Your task to perform on an android device: install app "Booking.com: Hotels and more" Image 0: 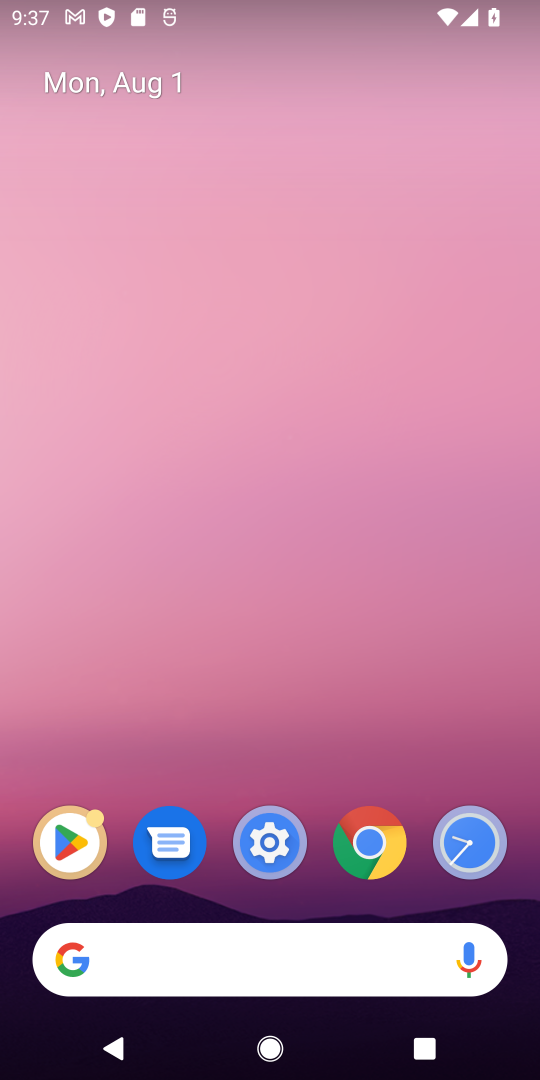
Step 0: click (73, 851)
Your task to perform on an android device: install app "Booking.com: Hotels and more" Image 1: 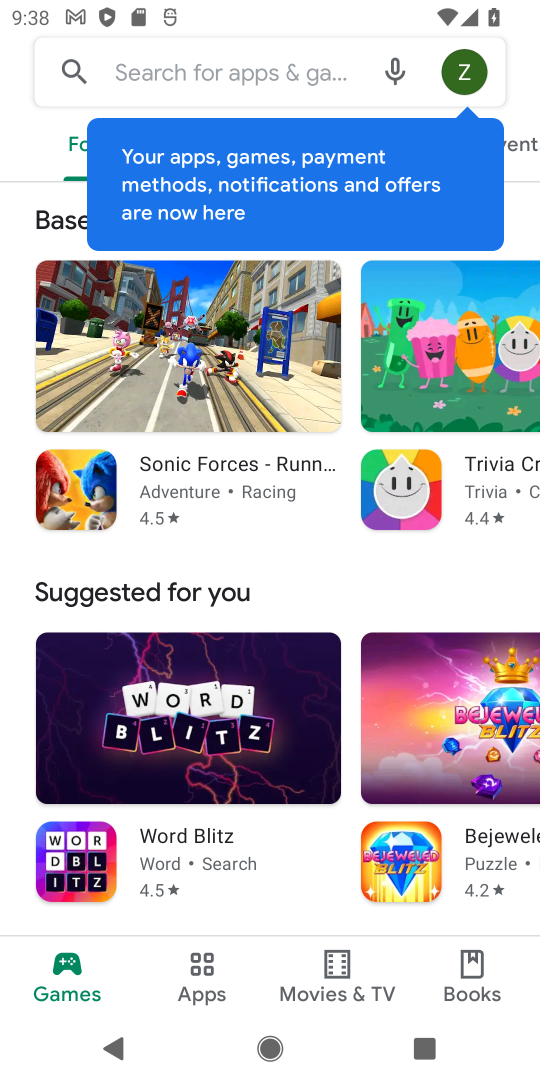
Step 1: click (193, 66)
Your task to perform on an android device: install app "Booking.com: Hotels and more" Image 2: 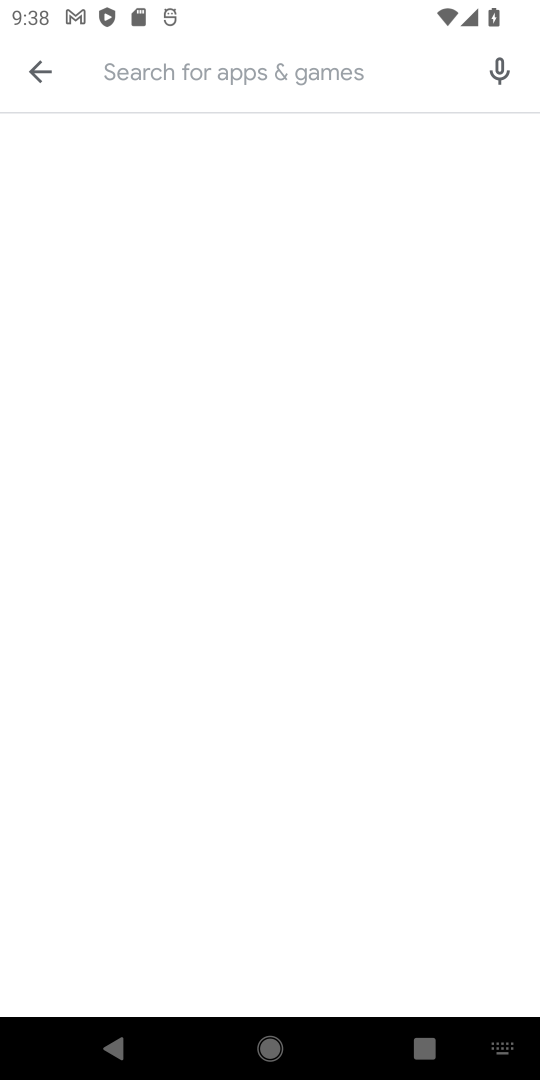
Step 2: click (223, 68)
Your task to perform on an android device: install app "Booking.com: Hotels and more" Image 3: 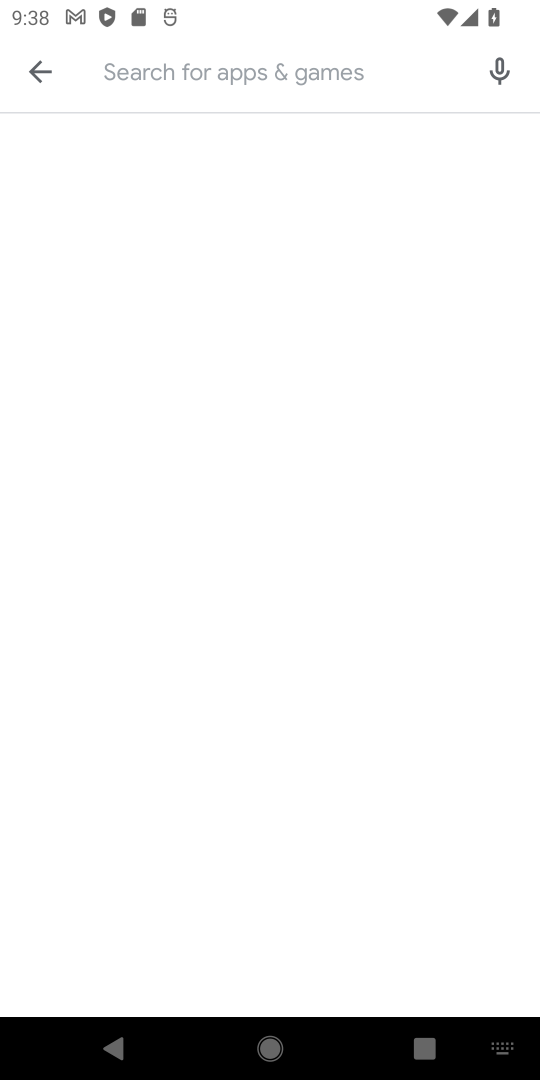
Step 3: type "booking.com"
Your task to perform on an android device: install app "Booking.com: Hotels and more" Image 4: 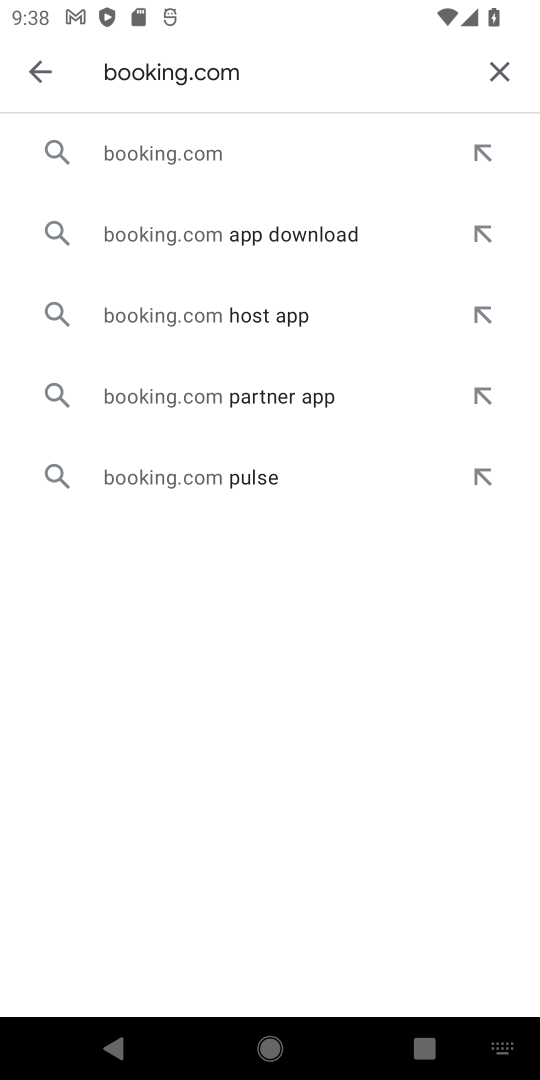
Step 4: click (220, 142)
Your task to perform on an android device: install app "Booking.com: Hotels and more" Image 5: 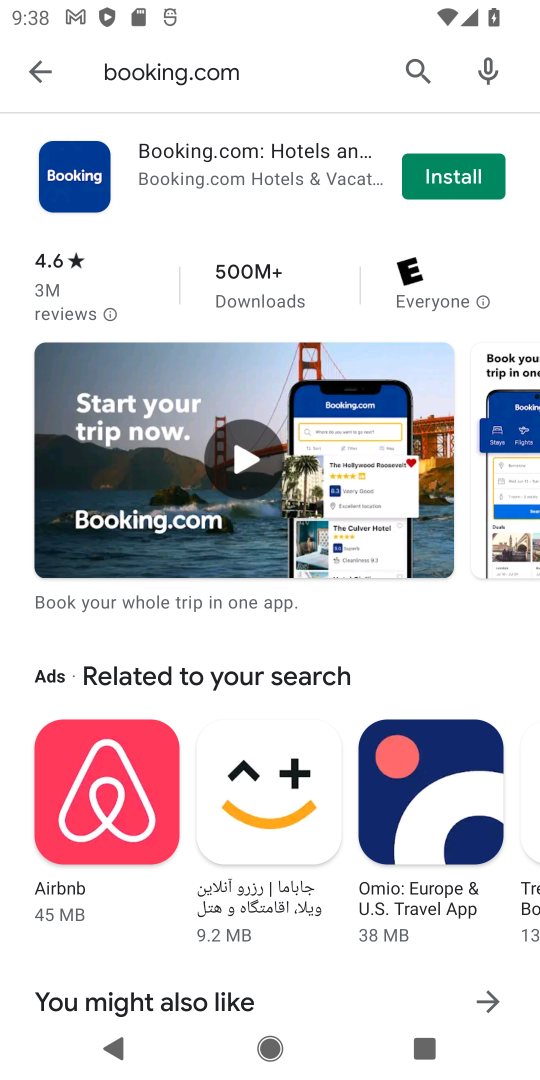
Step 5: click (444, 168)
Your task to perform on an android device: install app "Booking.com: Hotels and more" Image 6: 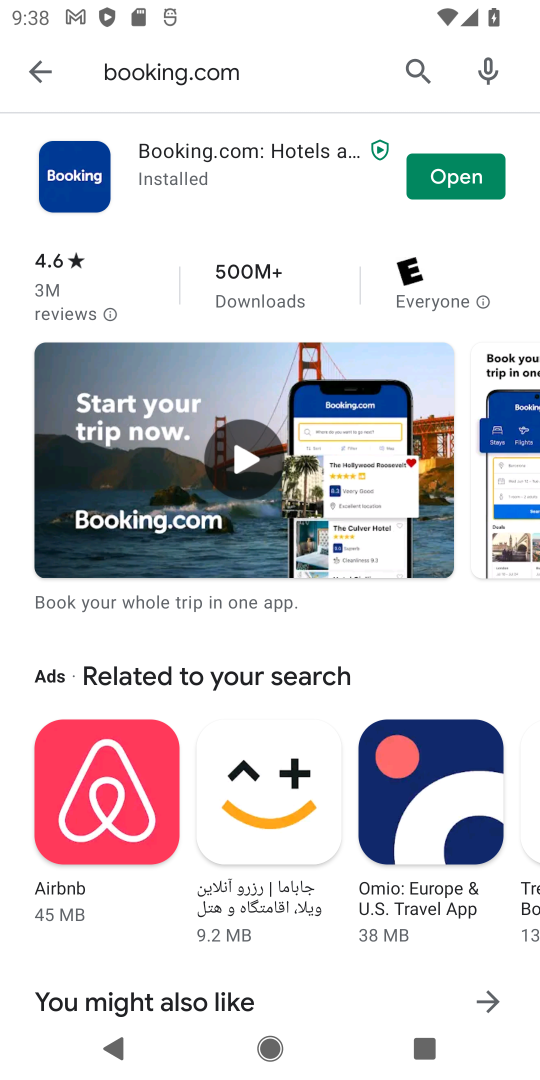
Step 6: click (458, 184)
Your task to perform on an android device: install app "Booking.com: Hotels and more" Image 7: 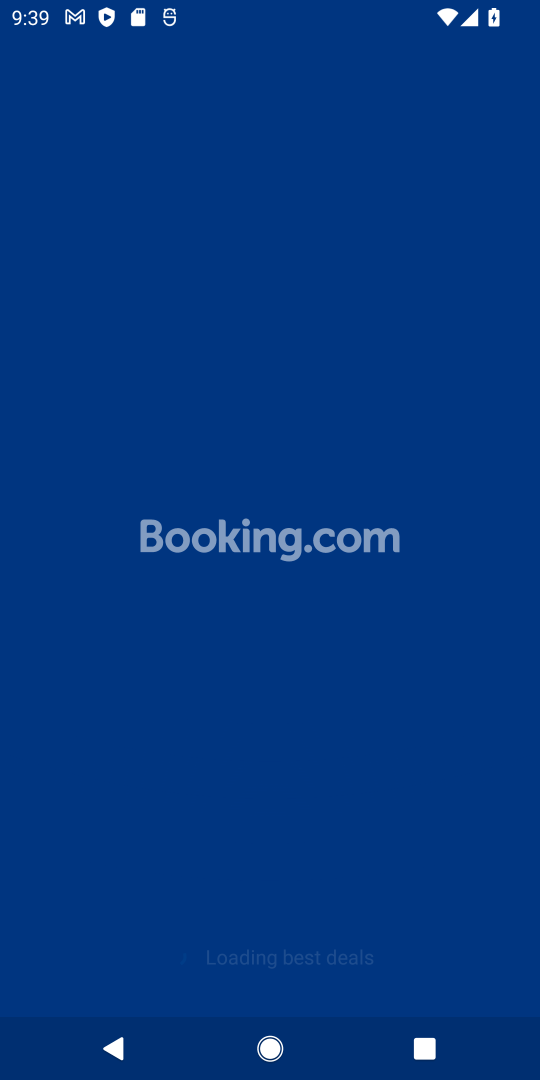
Step 7: task complete